Your task to perform on an android device: change the clock display to show seconds Image 0: 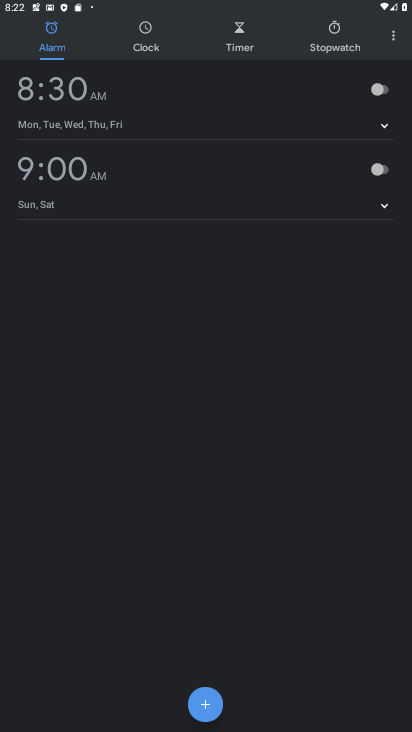
Step 0: click (391, 45)
Your task to perform on an android device: change the clock display to show seconds Image 1: 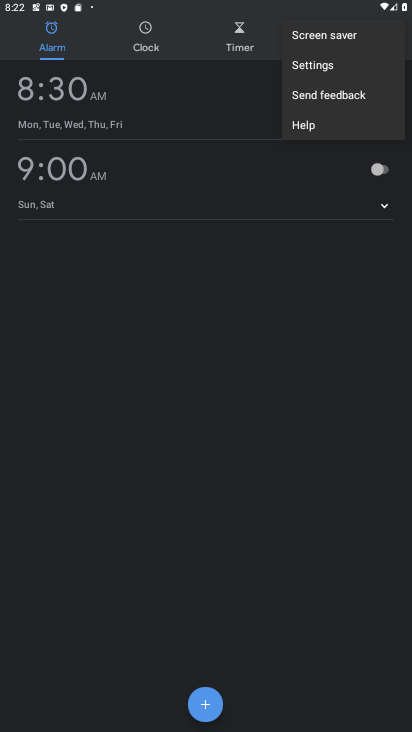
Step 1: click (309, 70)
Your task to perform on an android device: change the clock display to show seconds Image 2: 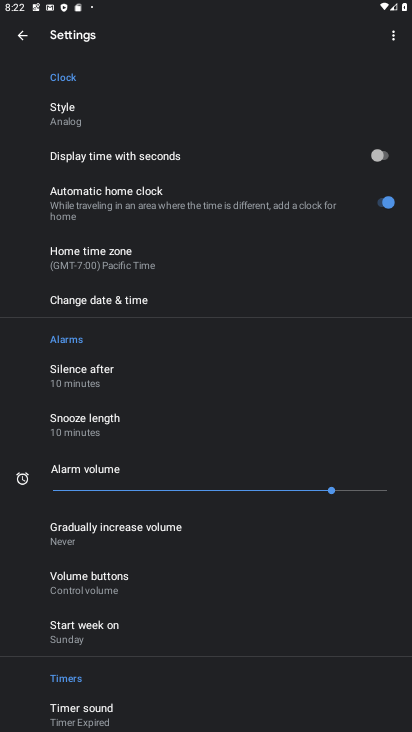
Step 2: click (385, 146)
Your task to perform on an android device: change the clock display to show seconds Image 3: 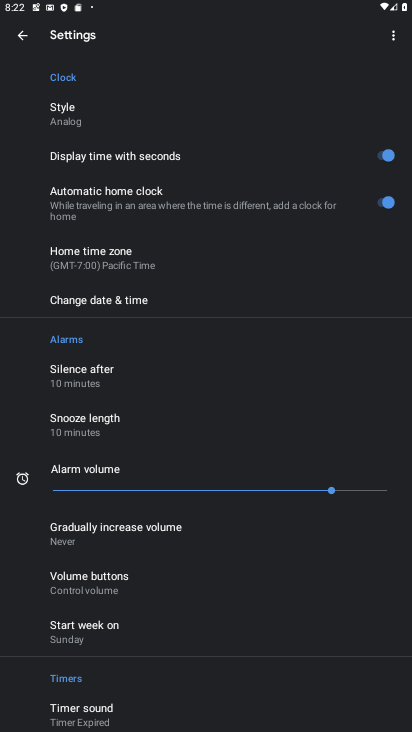
Step 3: task complete